Your task to perform on an android device: snooze an email in the gmail app Image 0: 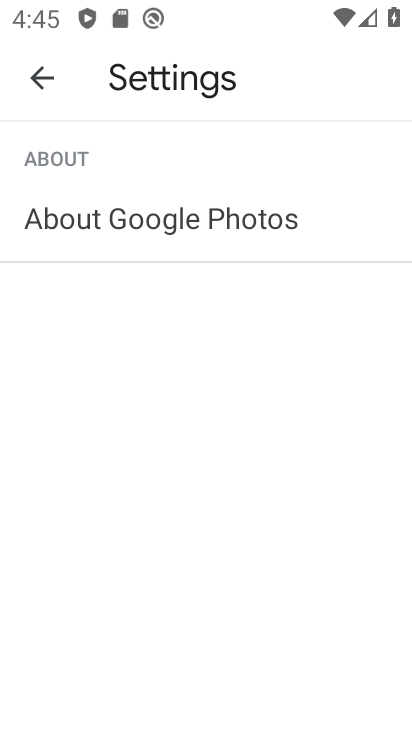
Step 0: press home button
Your task to perform on an android device: snooze an email in the gmail app Image 1: 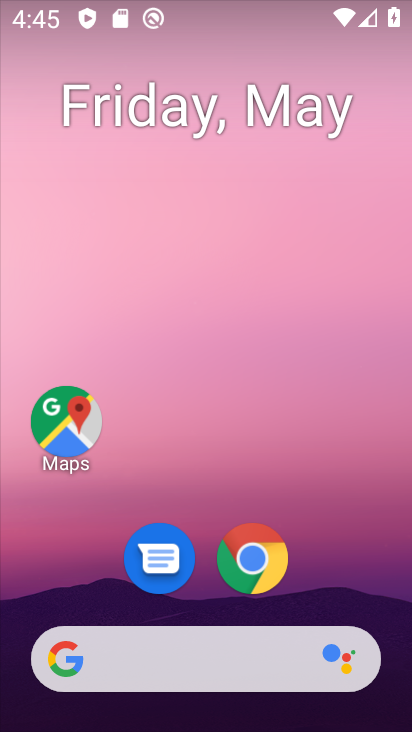
Step 1: drag from (356, 586) to (245, 119)
Your task to perform on an android device: snooze an email in the gmail app Image 2: 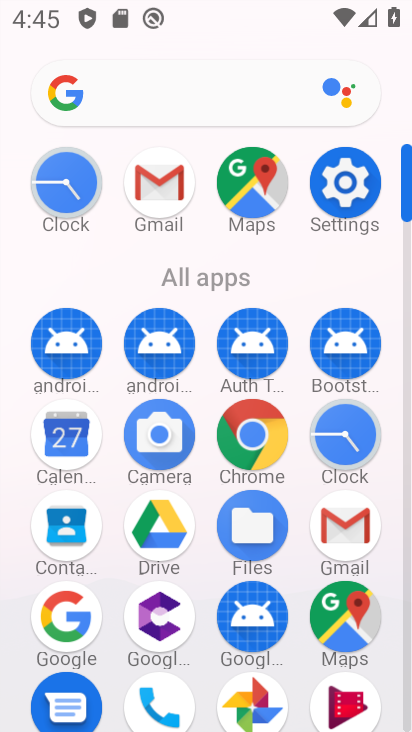
Step 2: click (171, 188)
Your task to perform on an android device: snooze an email in the gmail app Image 3: 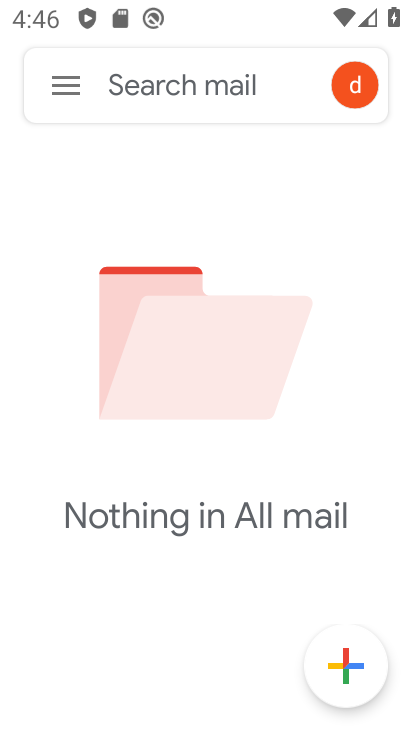
Step 3: task complete